Your task to perform on an android device: turn off wifi Image 0: 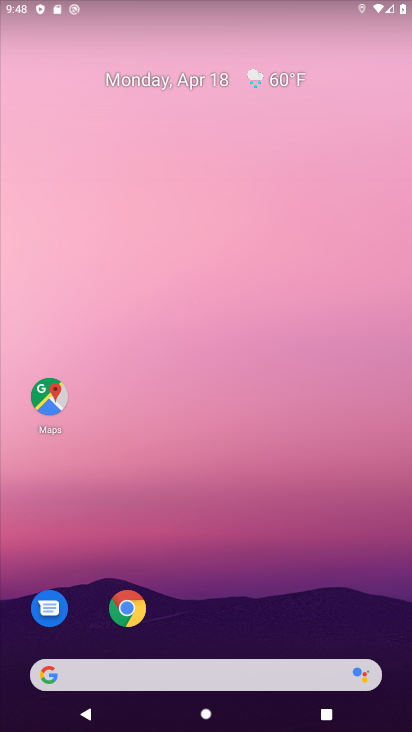
Step 0: click (386, 328)
Your task to perform on an android device: turn off wifi Image 1: 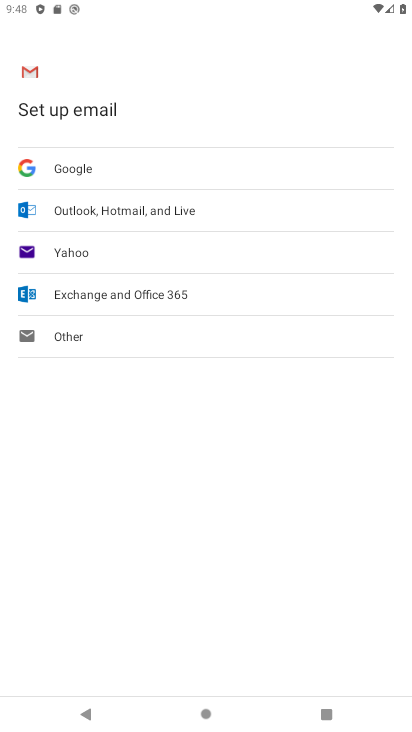
Step 1: press home button
Your task to perform on an android device: turn off wifi Image 2: 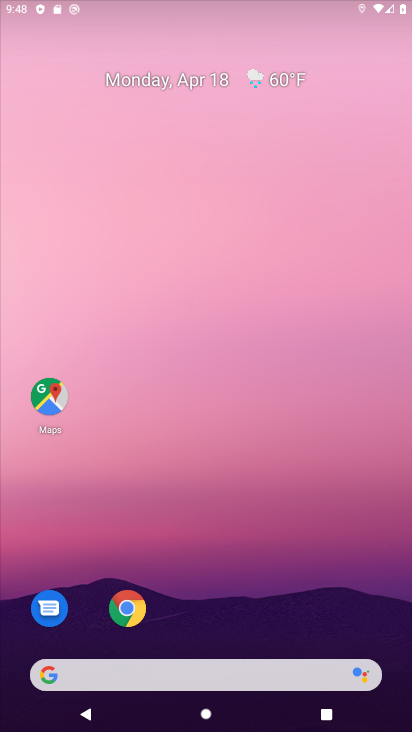
Step 2: drag from (190, 610) to (252, 33)
Your task to perform on an android device: turn off wifi Image 3: 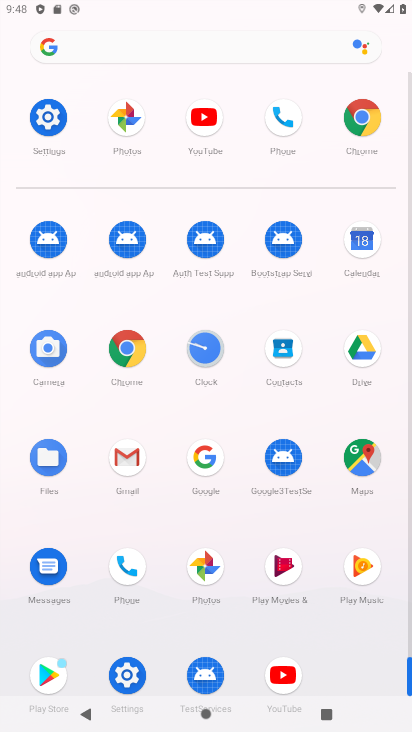
Step 3: click (46, 122)
Your task to perform on an android device: turn off wifi Image 4: 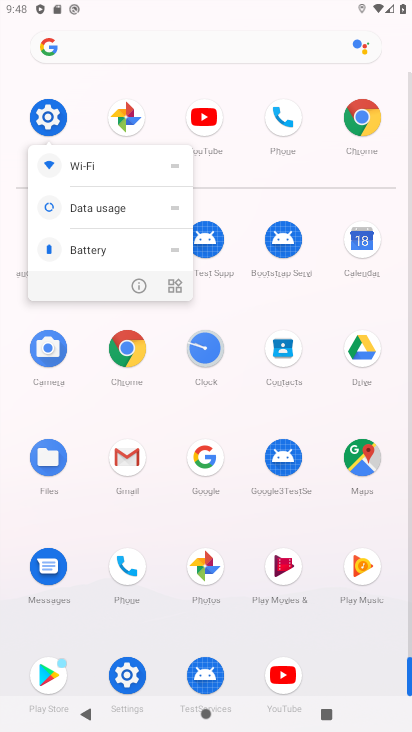
Step 4: click (76, 162)
Your task to perform on an android device: turn off wifi Image 5: 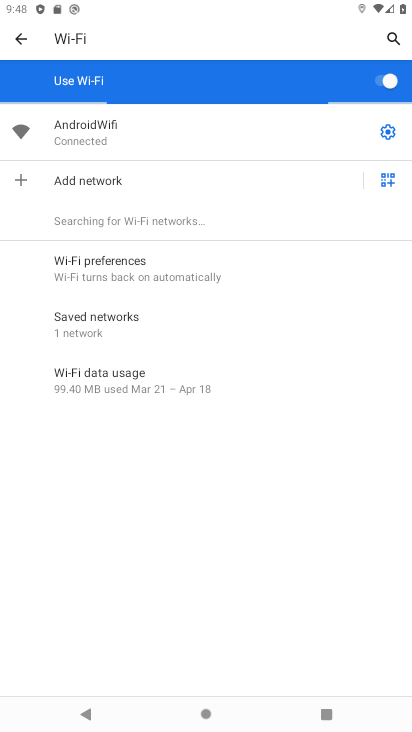
Step 5: click (378, 75)
Your task to perform on an android device: turn off wifi Image 6: 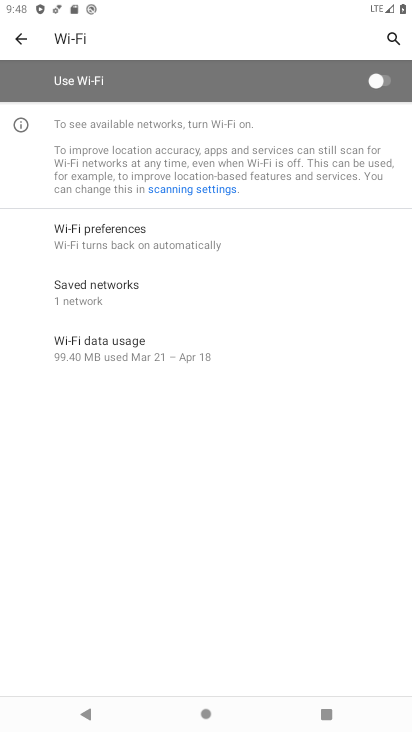
Step 6: task complete